Your task to perform on an android device: open app "NewsBreak: Local News & Alerts" (install if not already installed) Image 0: 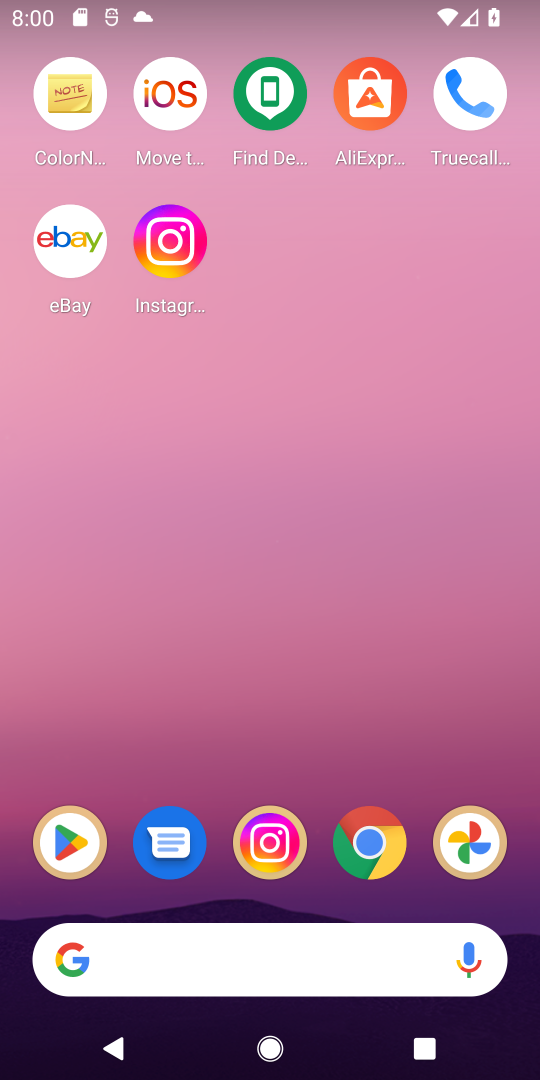
Step 0: click (60, 856)
Your task to perform on an android device: open app "NewsBreak: Local News & Alerts" (install if not already installed) Image 1: 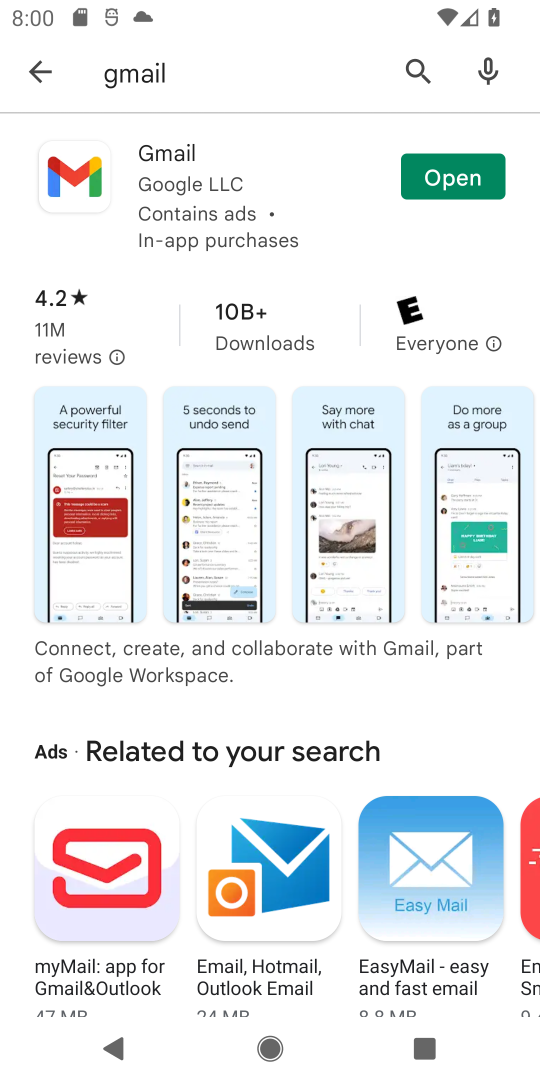
Step 1: click (215, 91)
Your task to perform on an android device: open app "NewsBreak: Local News & Alerts" (install if not already installed) Image 2: 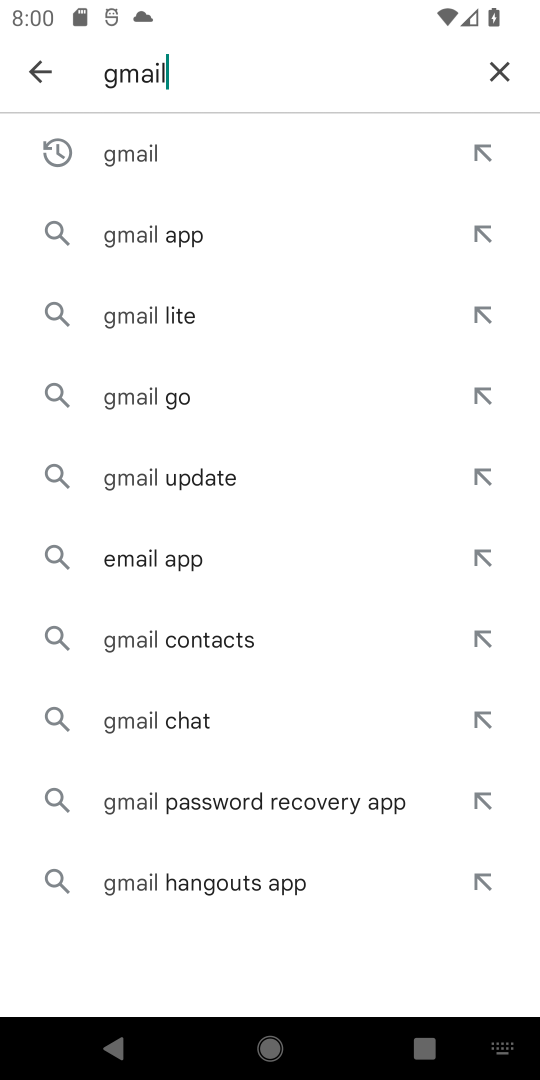
Step 2: click (492, 64)
Your task to perform on an android device: open app "NewsBreak: Local News & Alerts" (install if not already installed) Image 3: 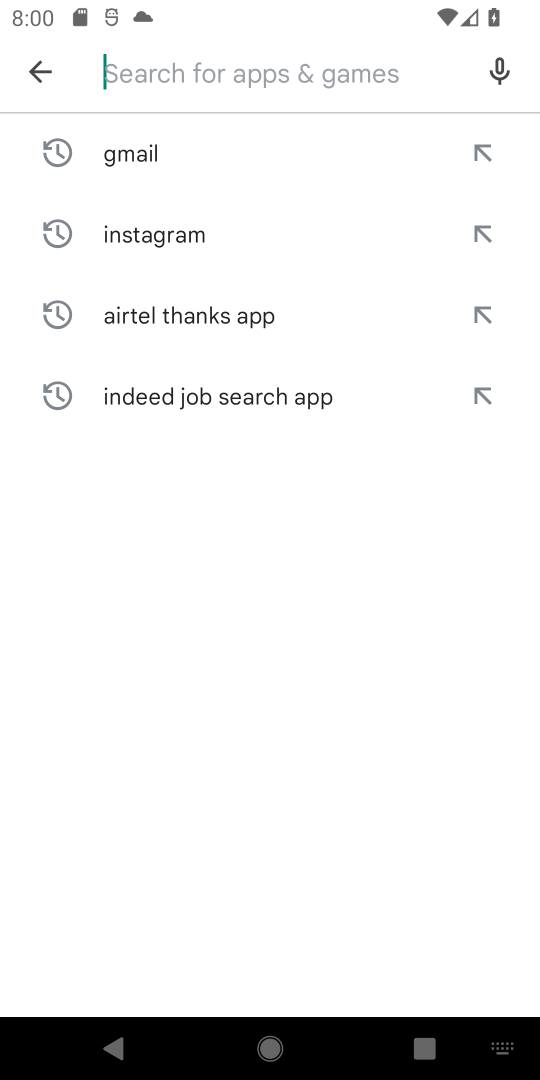
Step 3: type "newsbreak"
Your task to perform on an android device: open app "NewsBreak: Local News & Alerts" (install if not already installed) Image 4: 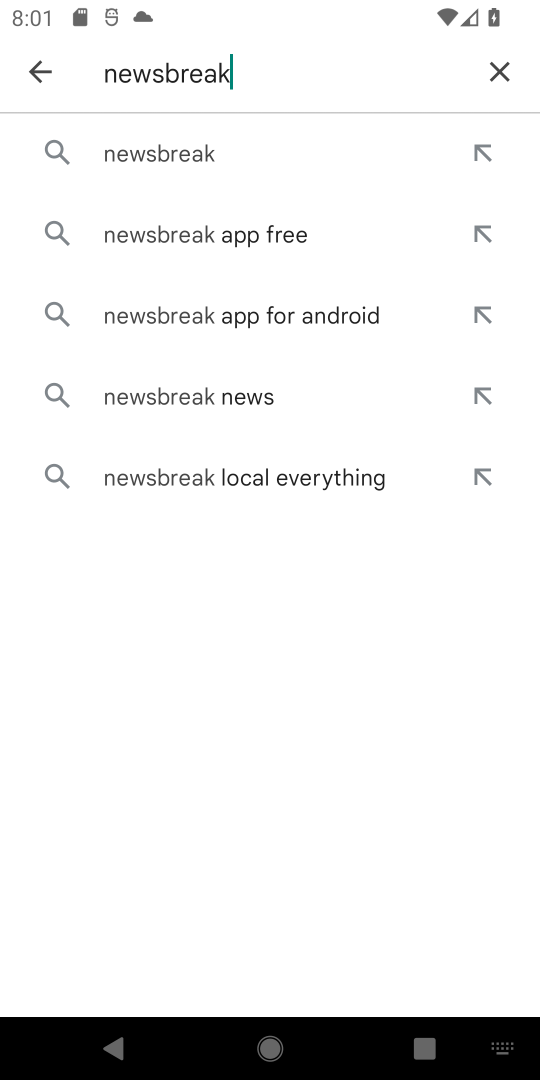
Step 4: click (185, 142)
Your task to perform on an android device: open app "NewsBreak: Local News & Alerts" (install if not already installed) Image 5: 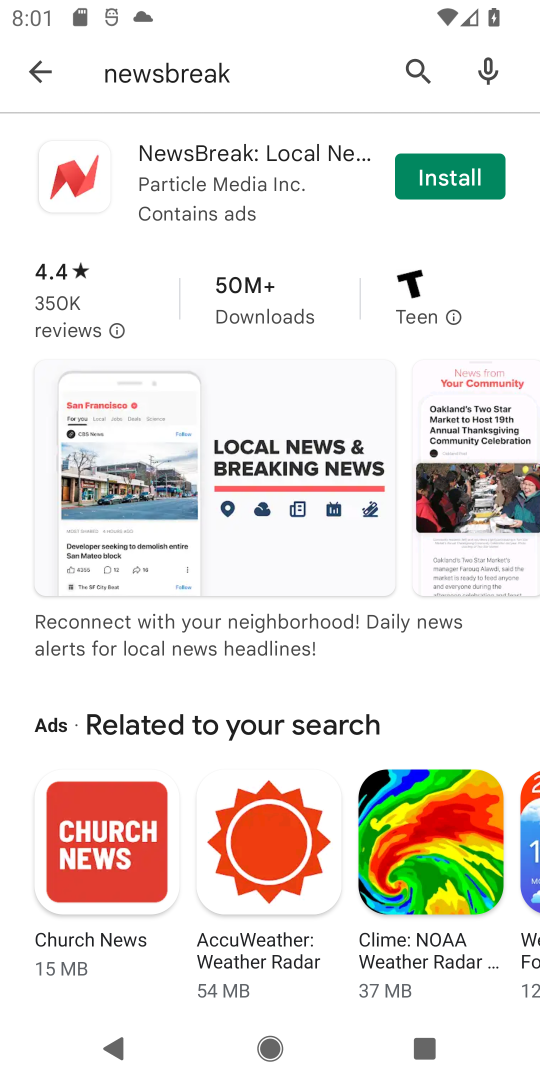
Step 5: click (413, 167)
Your task to perform on an android device: open app "NewsBreak: Local News & Alerts" (install if not already installed) Image 6: 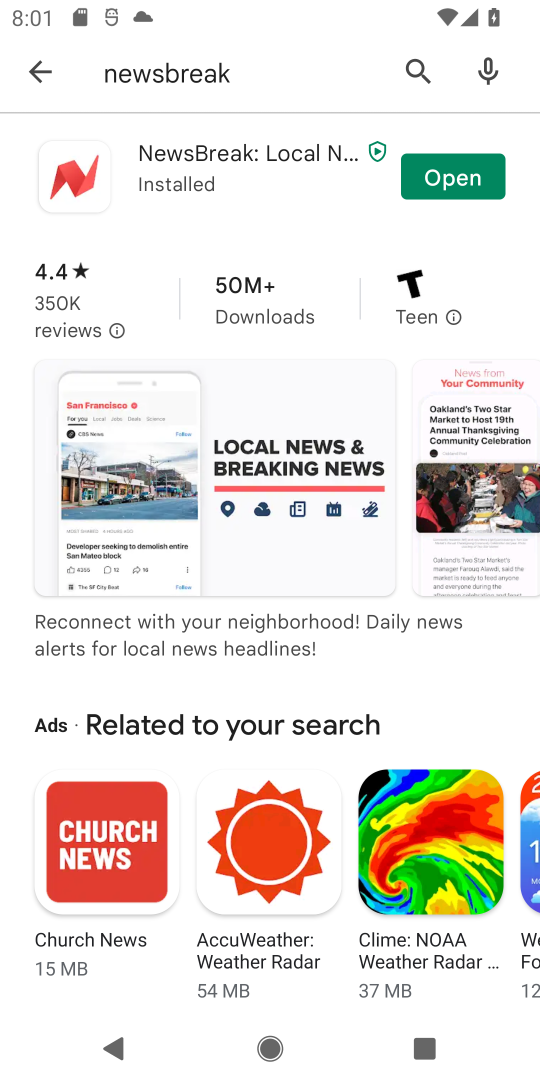
Step 6: click (484, 170)
Your task to perform on an android device: open app "NewsBreak: Local News & Alerts" (install if not already installed) Image 7: 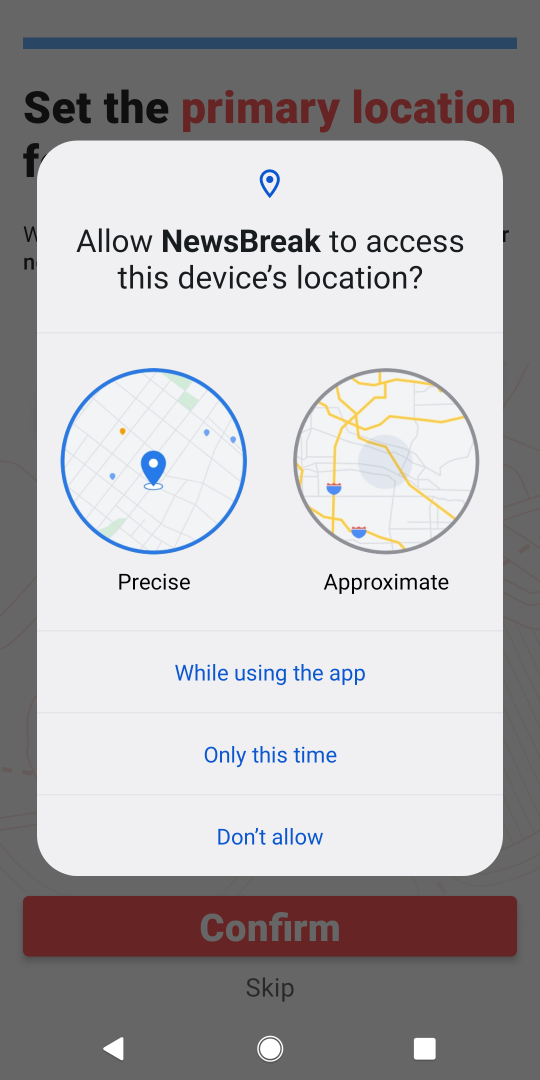
Step 7: click (391, 675)
Your task to perform on an android device: open app "NewsBreak: Local News & Alerts" (install if not already installed) Image 8: 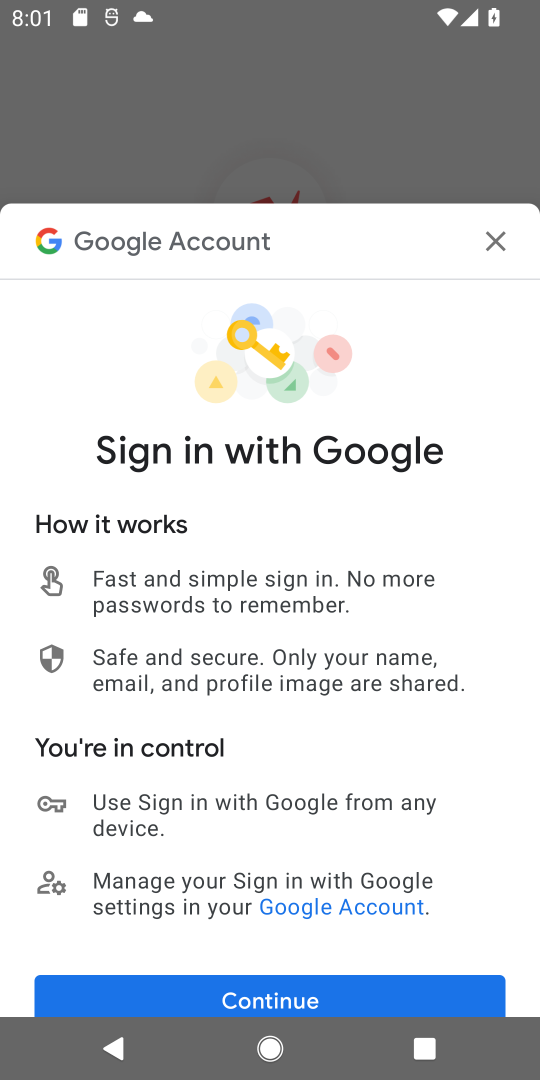
Step 8: click (490, 232)
Your task to perform on an android device: open app "NewsBreak: Local News & Alerts" (install if not already installed) Image 9: 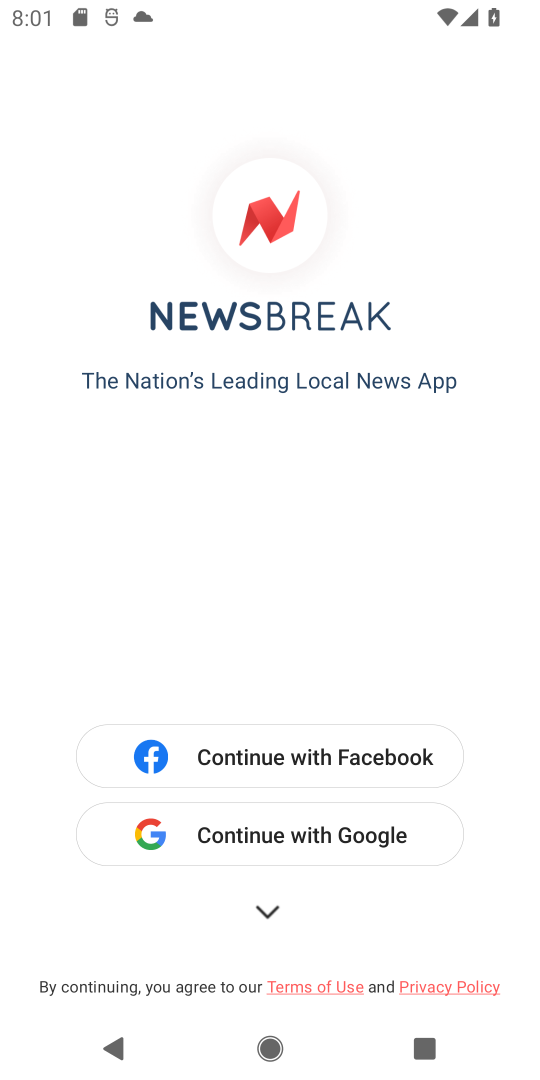
Step 9: click (320, 827)
Your task to perform on an android device: open app "NewsBreak: Local News & Alerts" (install if not already installed) Image 10: 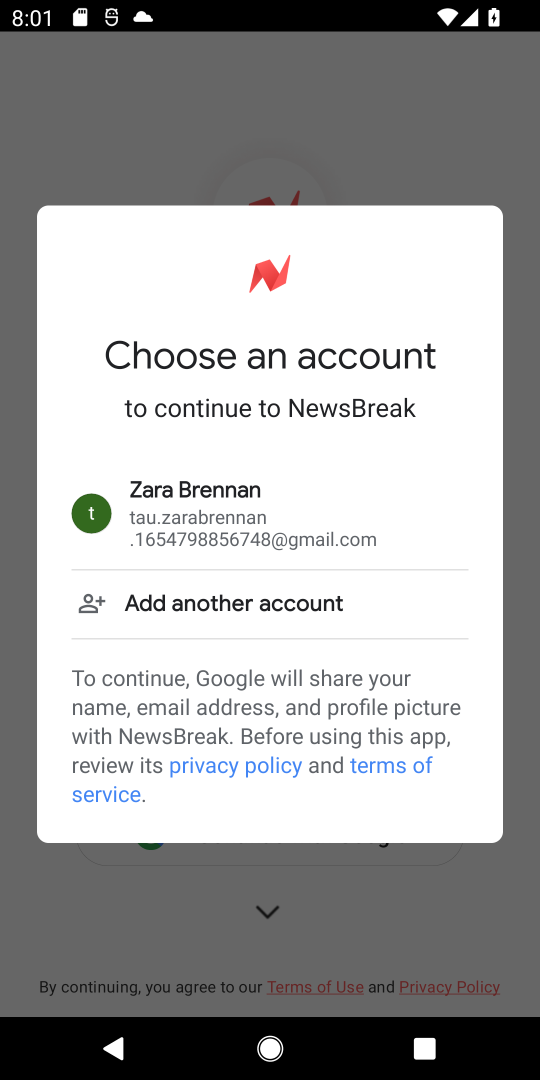
Step 10: click (232, 506)
Your task to perform on an android device: open app "NewsBreak: Local News & Alerts" (install if not already installed) Image 11: 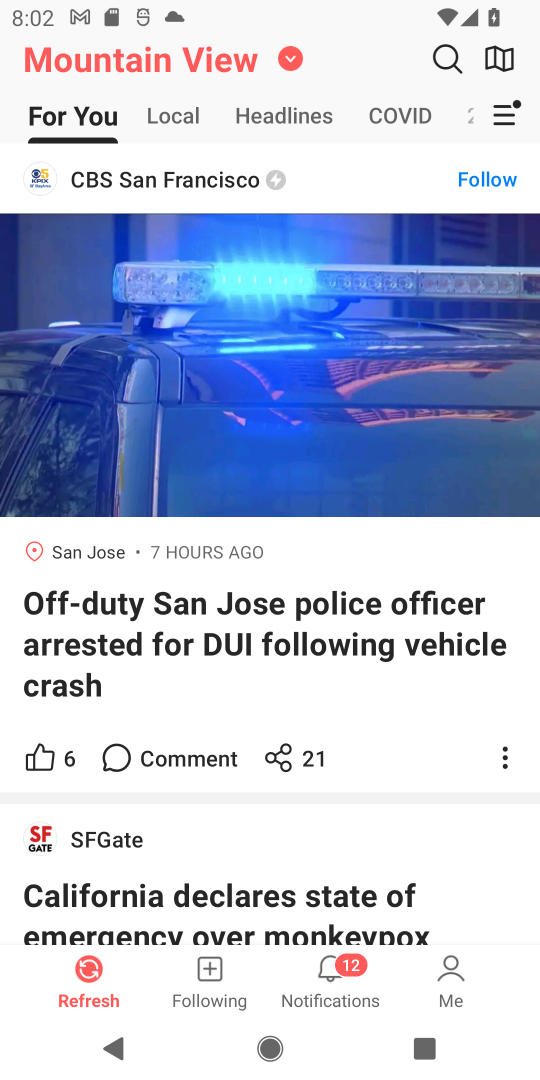
Step 11: task complete